Your task to perform on an android device: check storage Image 0: 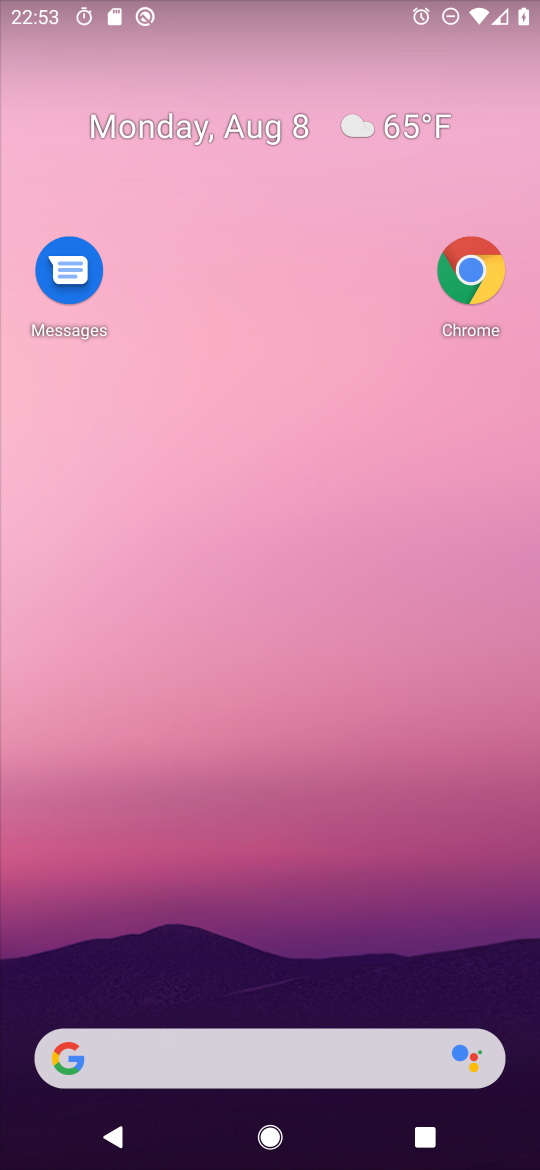
Step 0: drag from (342, 965) to (491, 266)
Your task to perform on an android device: check storage Image 1: 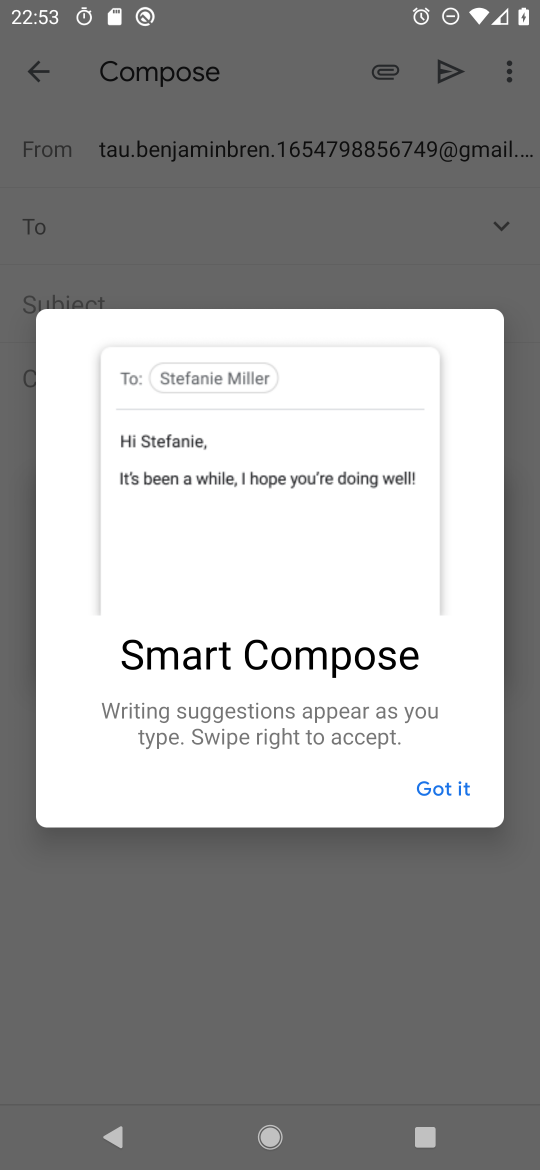
Step 1: press home button
Your task to perform on an android device: check storage Image 2: 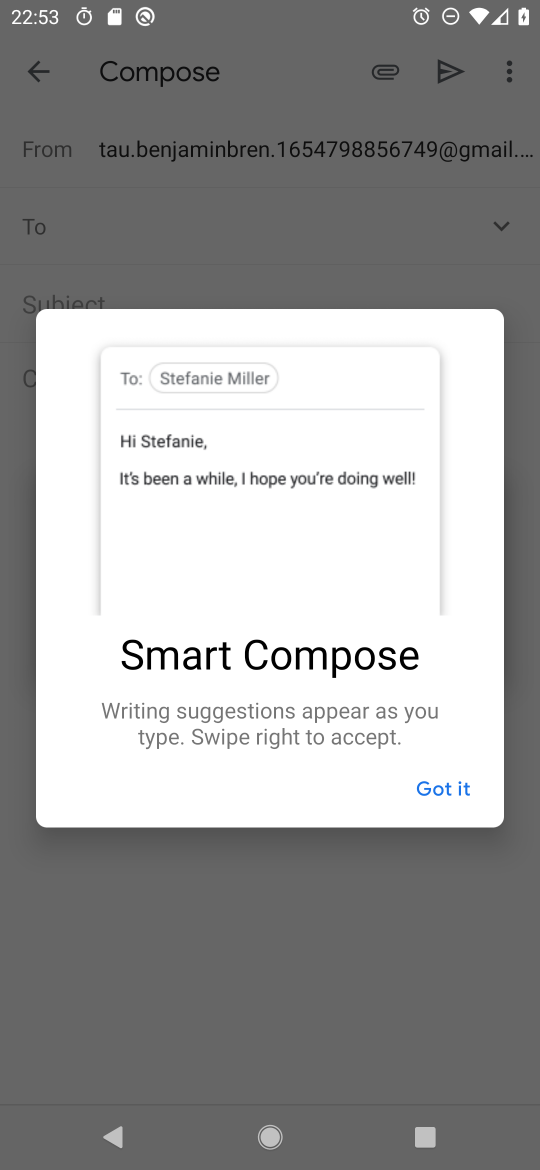
Step 2: drag from (274, 984) to (416, 106)
Your task to perform on an android device: check storage Image 3: 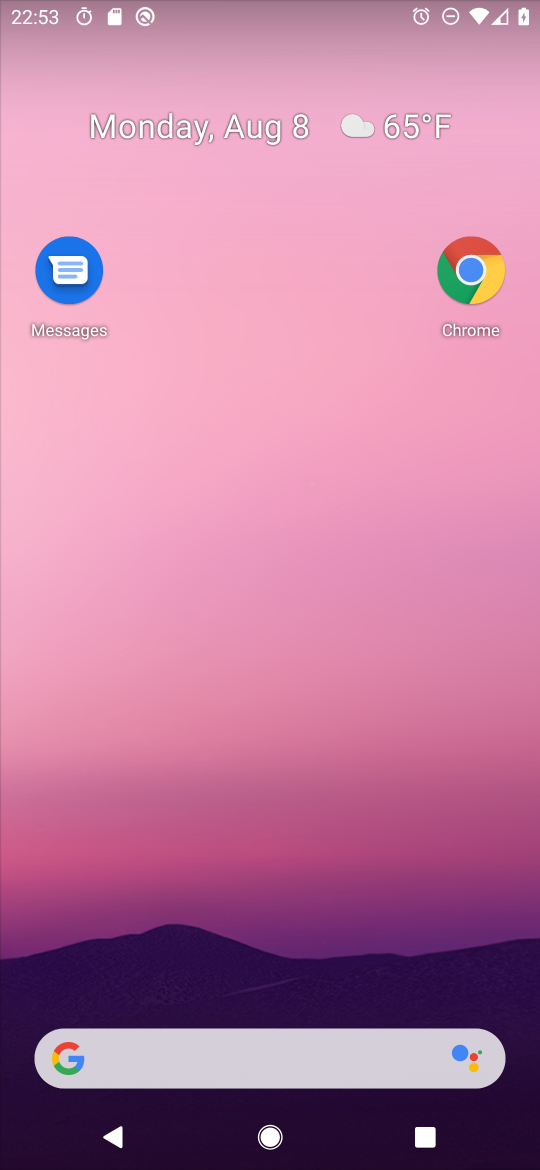
Step 3: drag from (203, 735) to (271, 281)
Your task to perform on an android device: check storage Image 4: 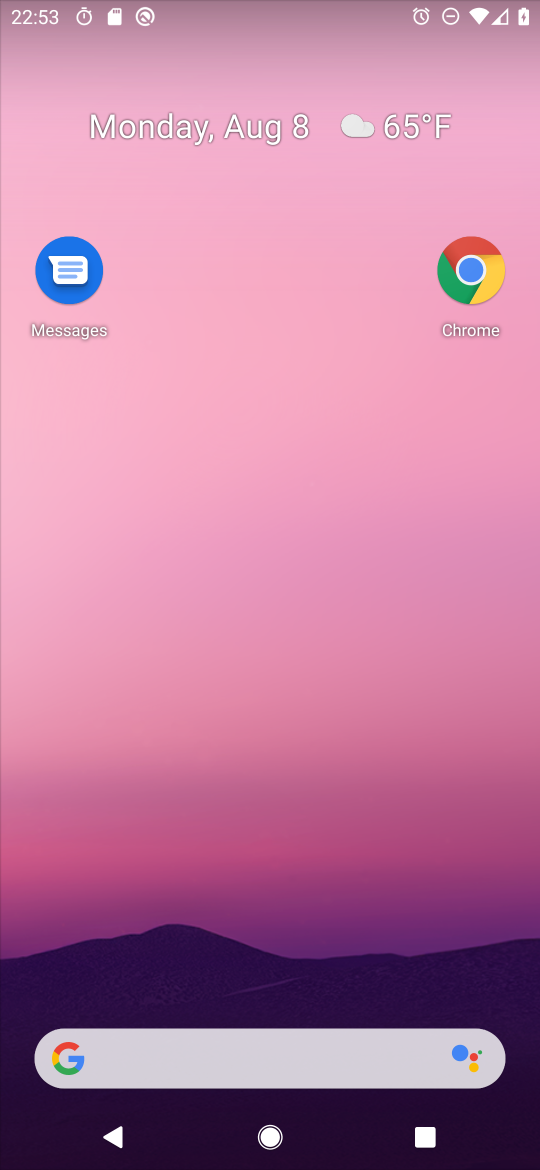
Step 4: drag from (265, 907) to (379, 396)
Your task to perform on an android device: check storage Image 5: 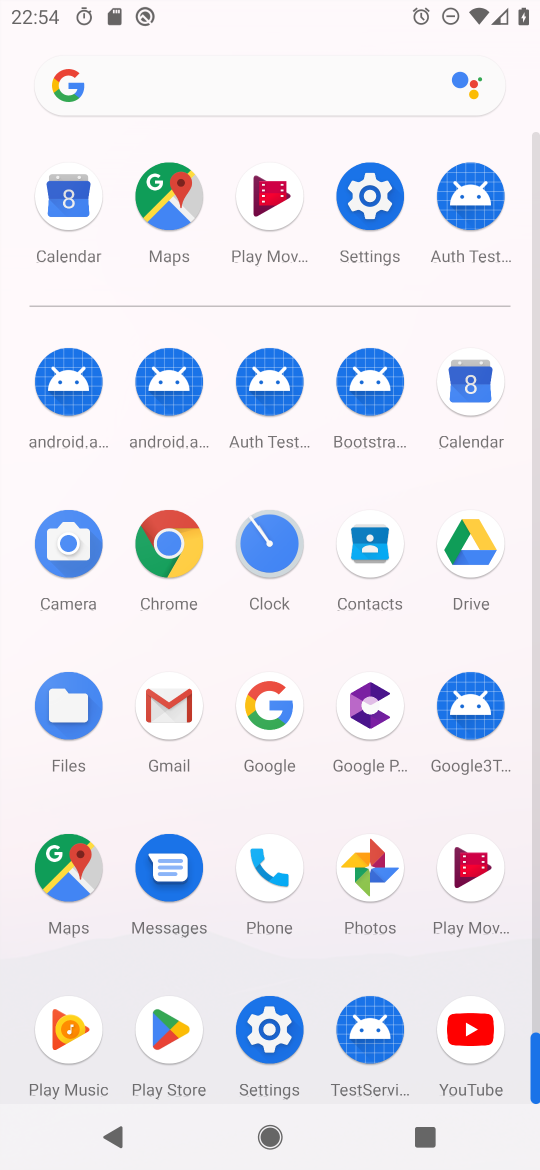
Step 5: click (381, 171)
Your task to perform on an android device: check storage Image 6: 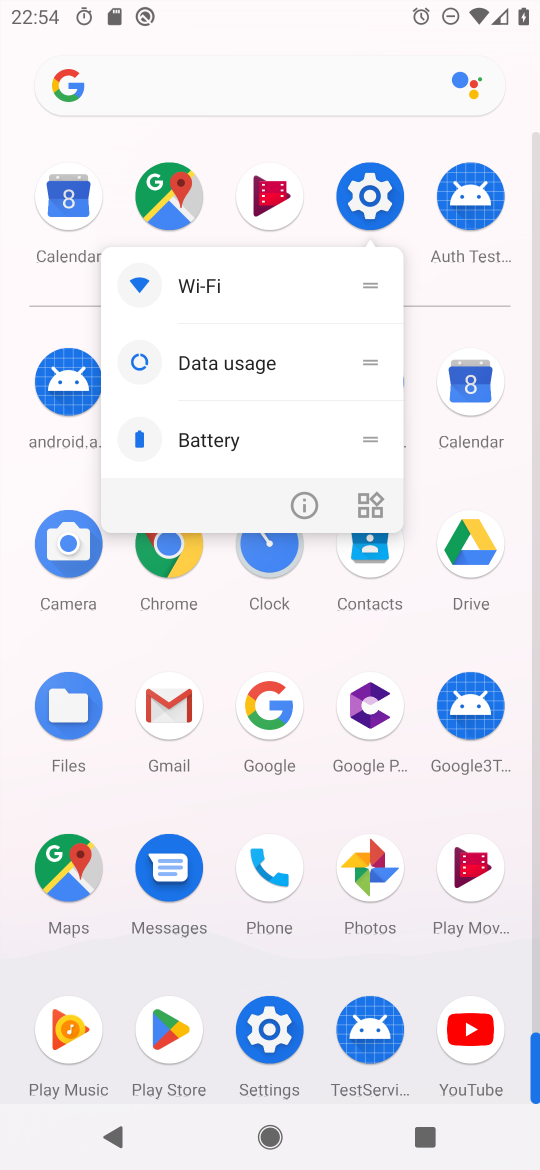
Step 6: click (298, 500)
Your task to perform on an android device: check storage Image 7: 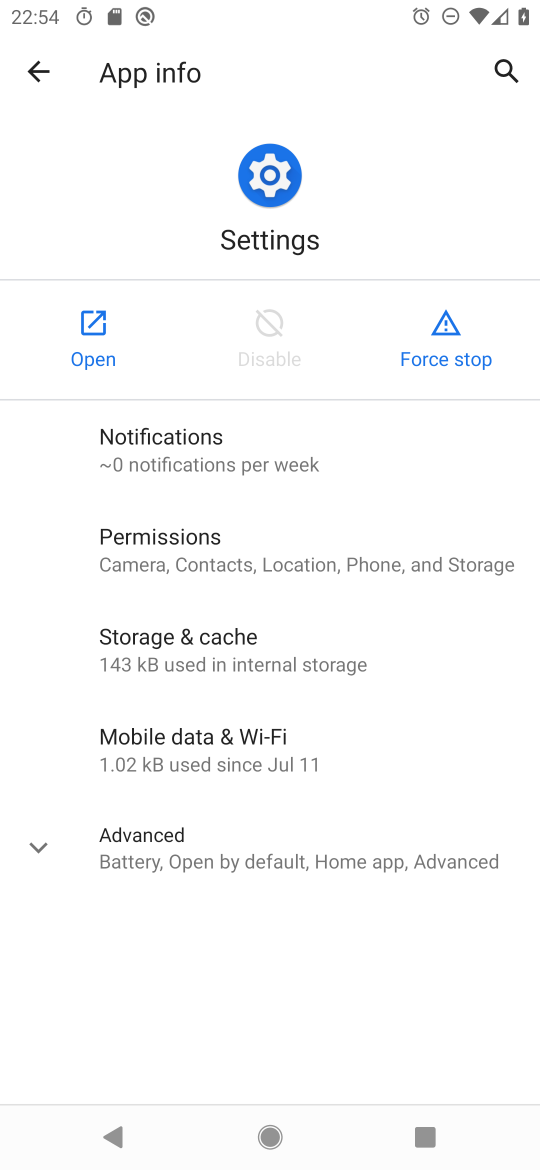
Step 7: click (75, 311)
Your task to perform on an android device: check storage Image 8: 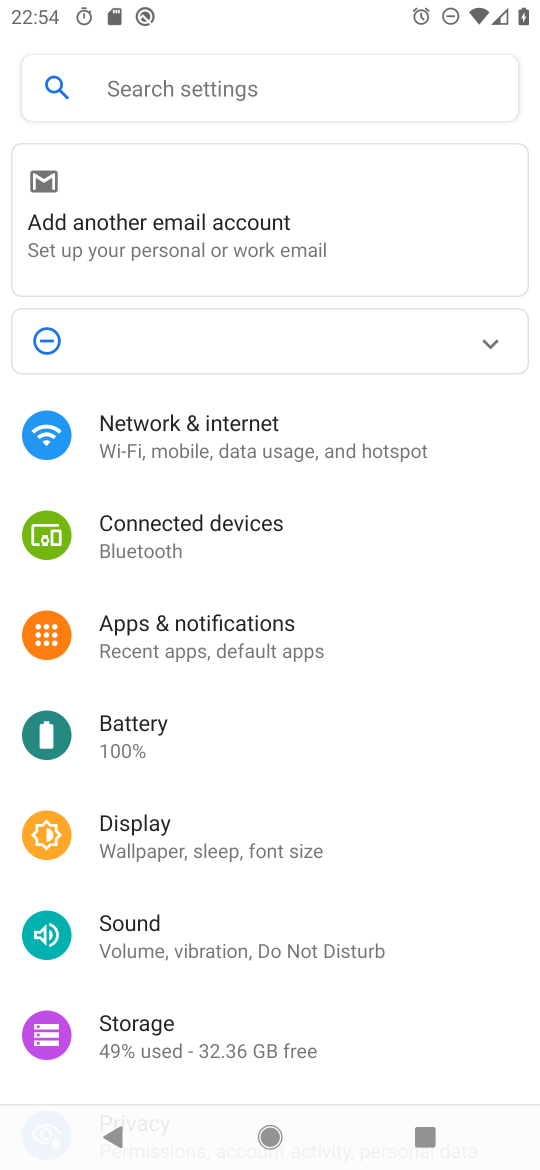
Step 8: click (177, 1020)
Your task to perform on an android device: check storage Image 9: 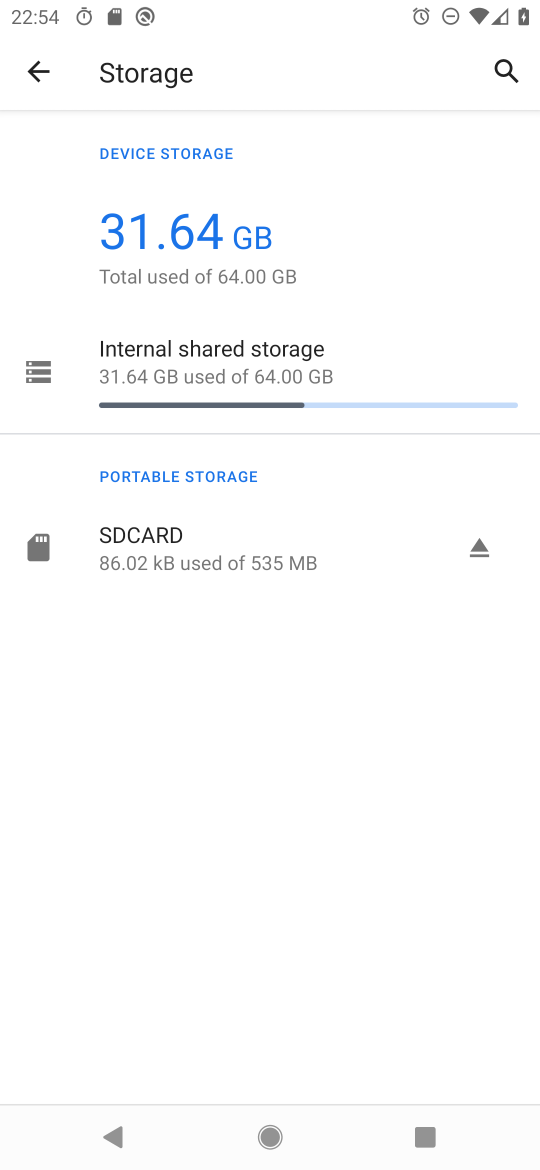
Step 9: task complete